Your task to perform on an android device: set an alarm Image 0: 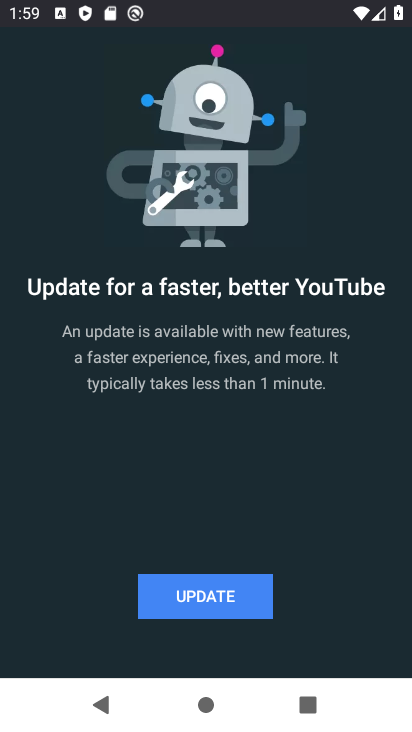
Step 0: press home button
Your task to perform on an android device: set an alarm Image 1: 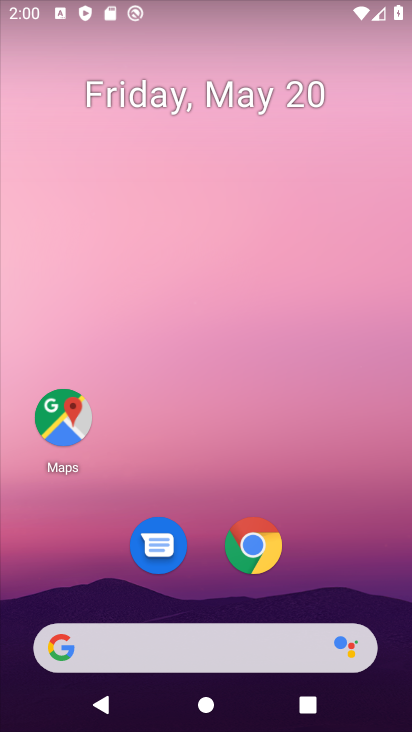
Step 1: drag from (243, 605) to (384, 179)
Your task to perform on an android device: set an alarm Image 2: 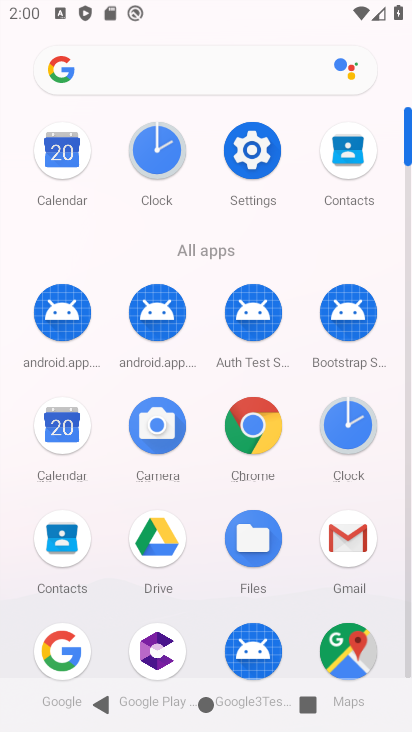
Step 2: click (358, 425)
Your task to perform on an android device: set an alarm Image 3: 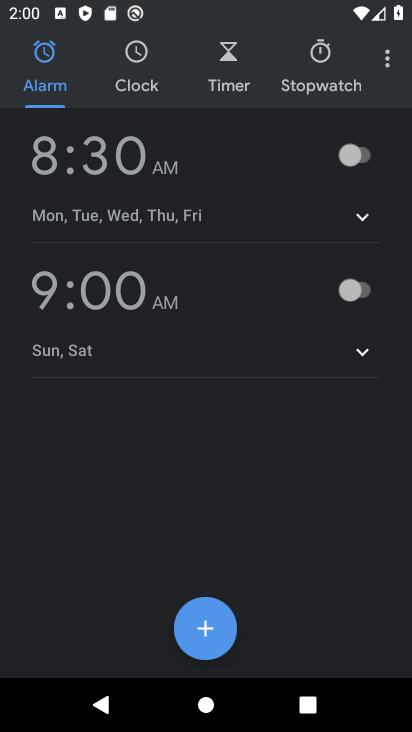
Step 3: click (360, 156)
Your task to perform on an android device: set an alarm Image 4: 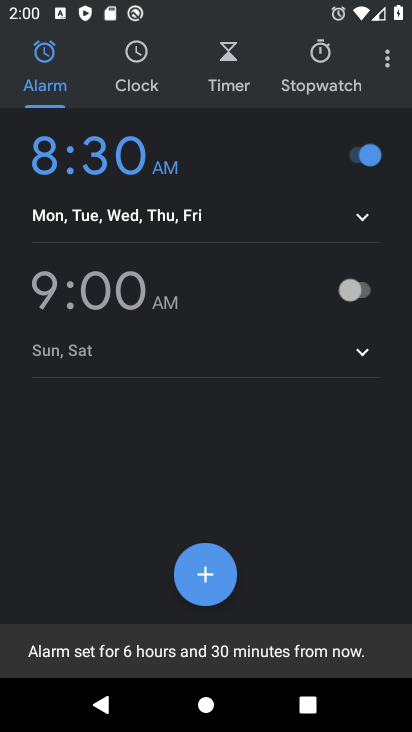
Step 4: task complete